Your task to perform on an android device: Go to battery settings Image 0: 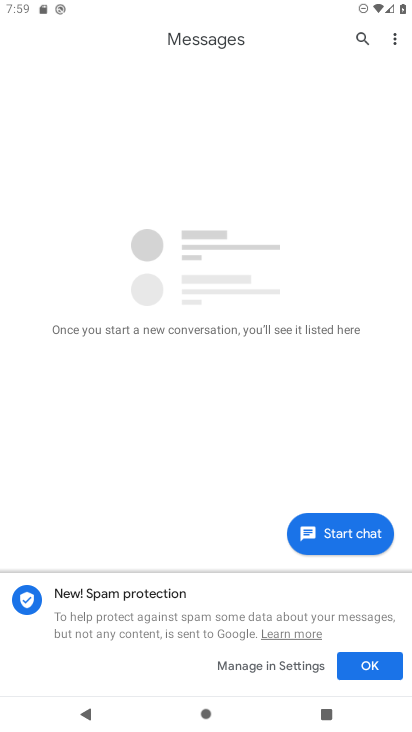
Step 0: press home button
Your task to perform on an android device: Go to battery settings Image 1: 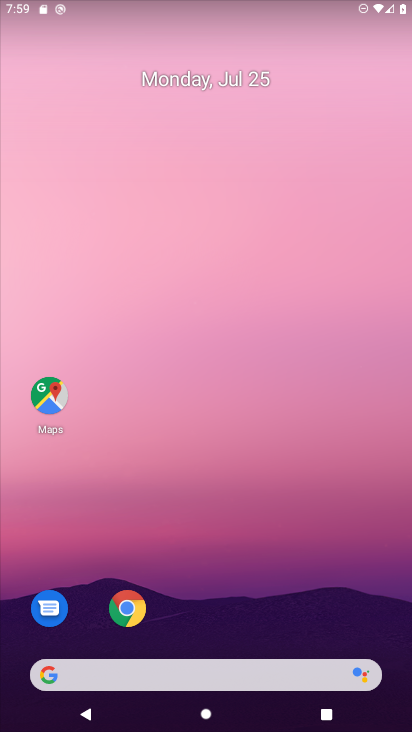
Step 1: drag from (362, 586) to (225, 122)
Your task to perform on an android device: Go to battery settings Image 2: 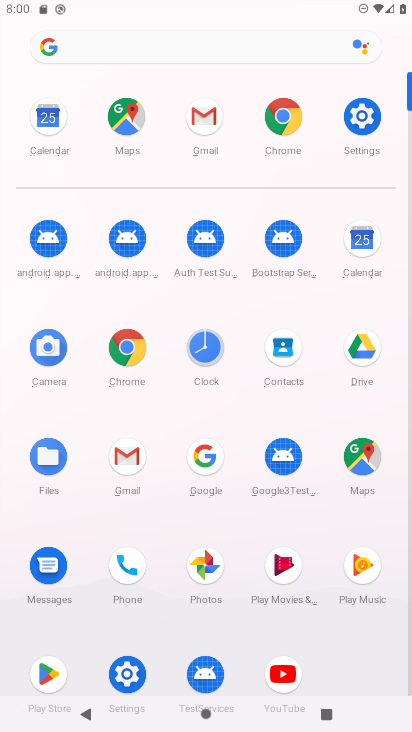
Step 2: click (343, 113)
Your task to perform on an android device: Go to battery settings Image 3: 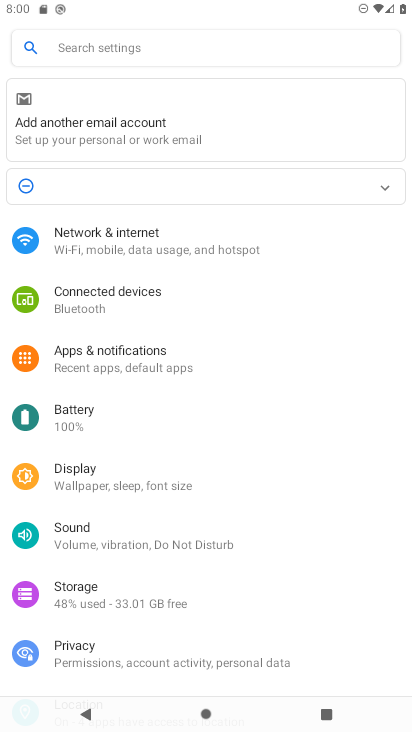
Step 3: click (128, 420)
Your task to perform on an android device: Go to battery settings Image 4: 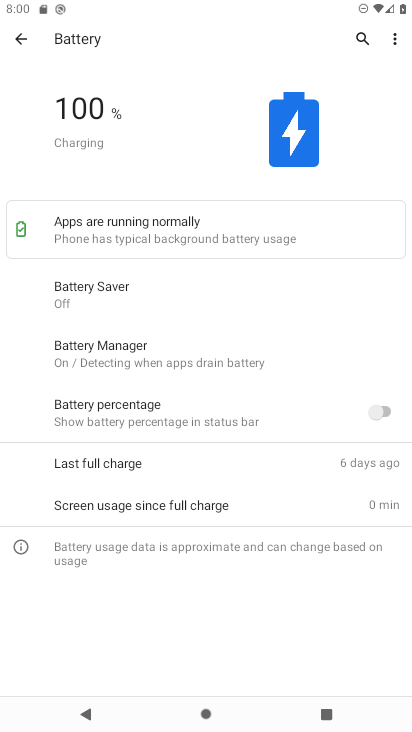
Step 4: task complete